Your task to perform on an android device: toggle pop-ups in chrome Image 0: 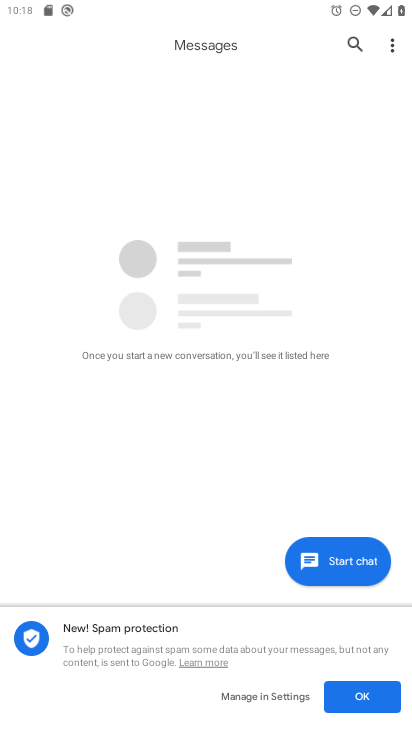
Step 0: press home button
Your task to perform on an android device: toggle pop-ups in chrome Image 1: 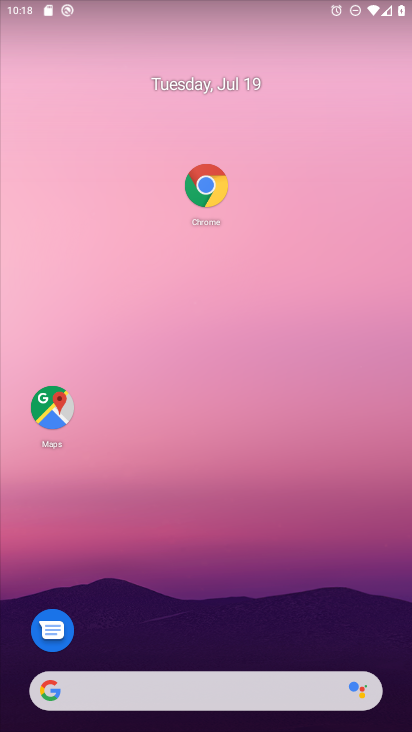
Step 1: drag from (263, 602) to (270, 233)
Your task to perform on an android device: toggle pop-ups in chrome Image 2: 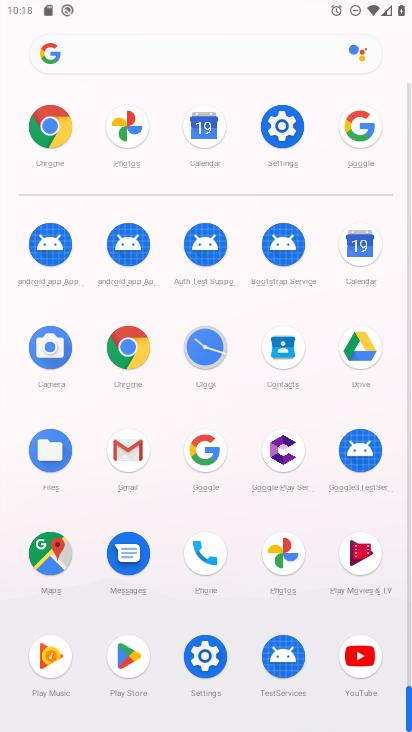
Step 2: click (48, 143)
Your task to perform on an android device: toggle pop-ups in chrome Image 3: 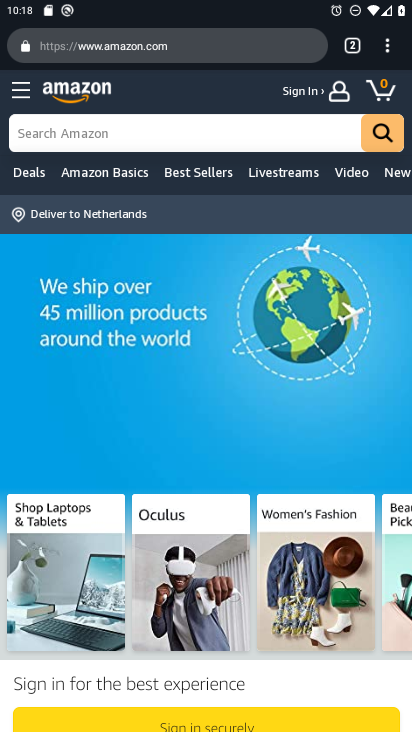
Step 3: click (391, 48)
Your task to perform on an android device: toggle pop-ups in chrome Image 4: 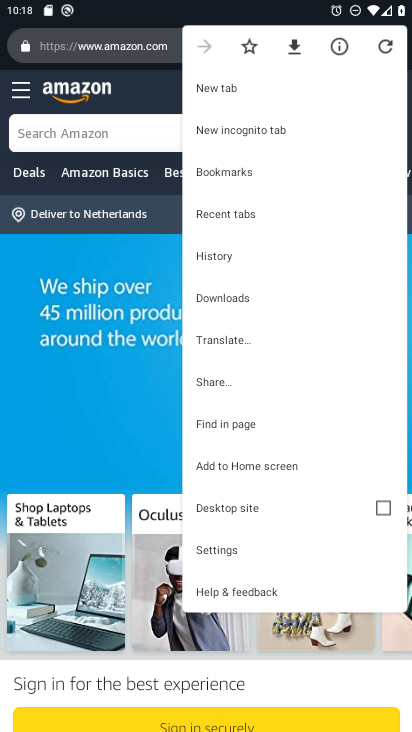
Step 4: click (223, 554)
Your task to perform on an android device: toggle pop-ups in chrome Image 5: 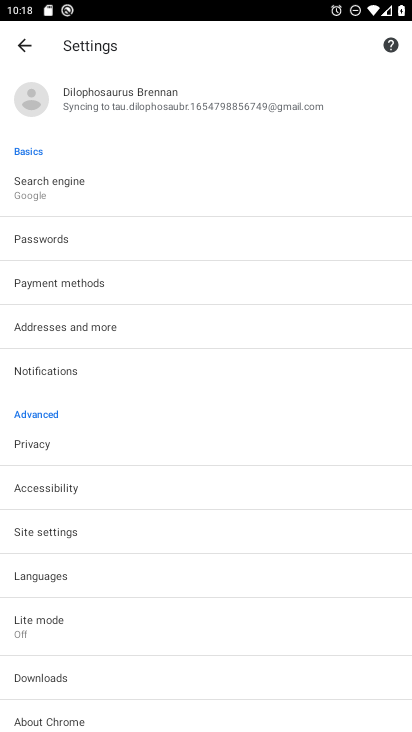
Step 5: drag from (97, 572) to (110, 452)
Your task to perform on an android device: toggle pop-ups in chrome Image 6: 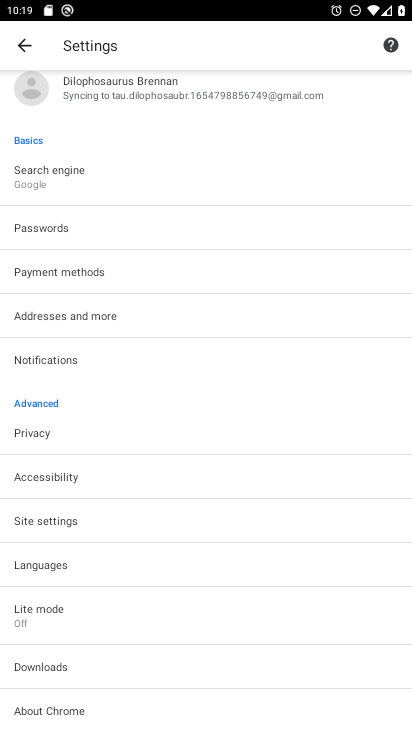
Step 6: click (106, 525)
Your task to perform on an android device: toggle pop-ups in chrome Image 7: 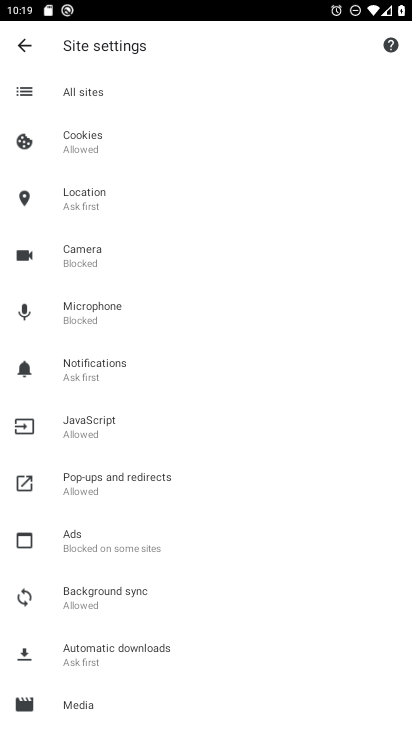
Step 7: click (145, 486)
Your task to perform on an android device: toggle pop-ups in chrome Image 8: 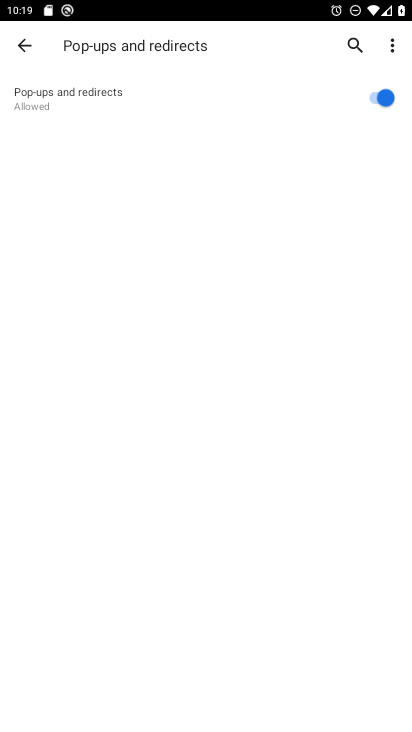
Step 8: click (367, 93)
Your task to perform on an android device: toggle pop-ups in chrome Image 9: 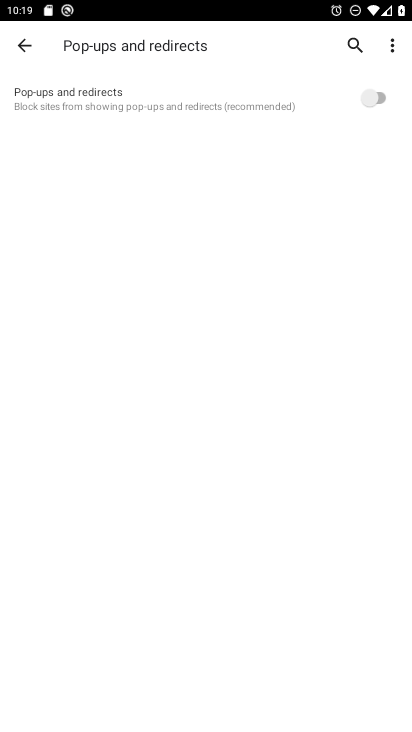
Step 9: task complete